Your task to perform on an android device: Go to wifi settings Image 0: 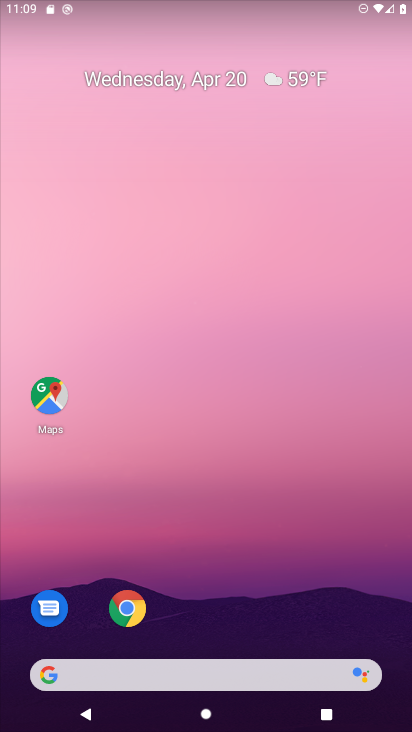
Step 0: drag from (297, 579) to (267, 236)
Your task to perform on an android device: Go to wifi settings Image 1: 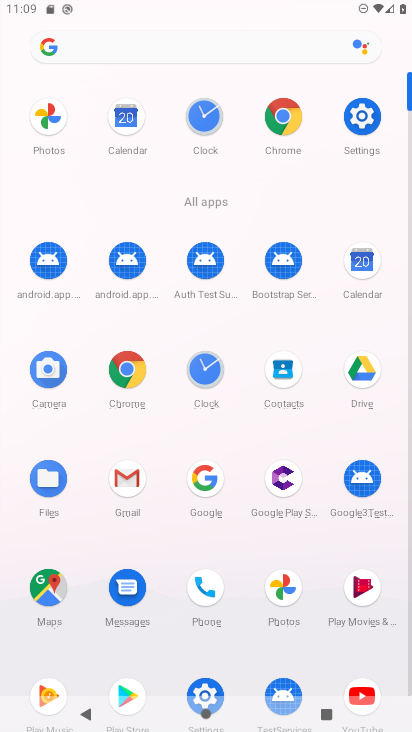
Step 1: click (360, 129)
Your task to perform on an android device: Go to wifi settings Image 2: 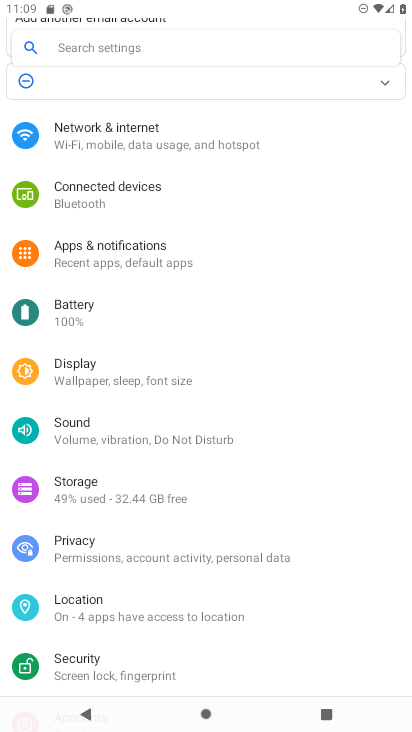
Step 2: click (184, 149)
Your task to perform on an android device: Go to wifi settings Image 3: 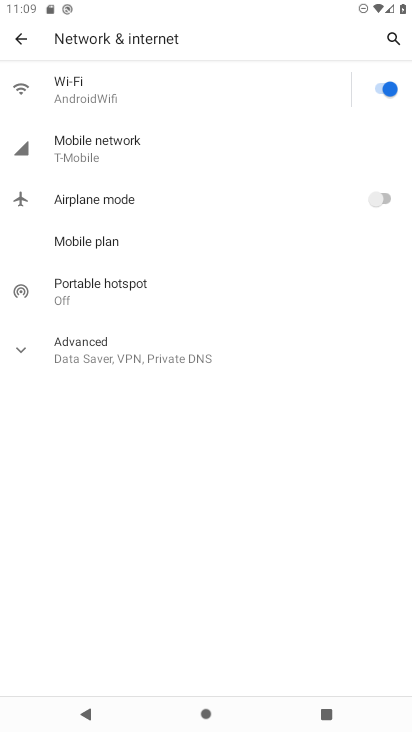
Step 3: click (173, 94)
Your task to perform on an android device: Go to wifi settings Image 4: 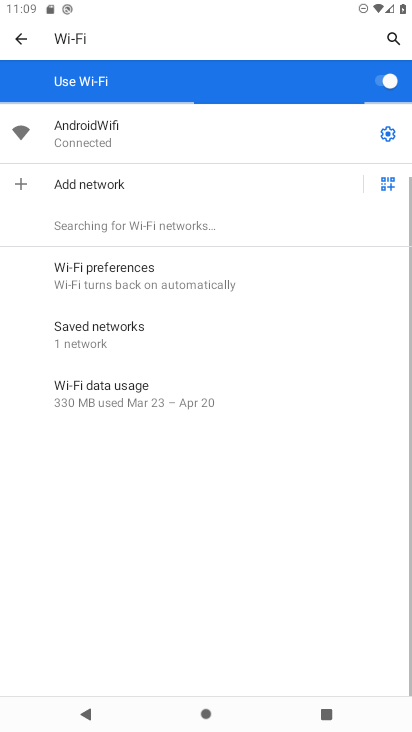
Step 4: task complete